Your task to perform on an android device: read, delete, or share a saved page in the chrome app Image 0: 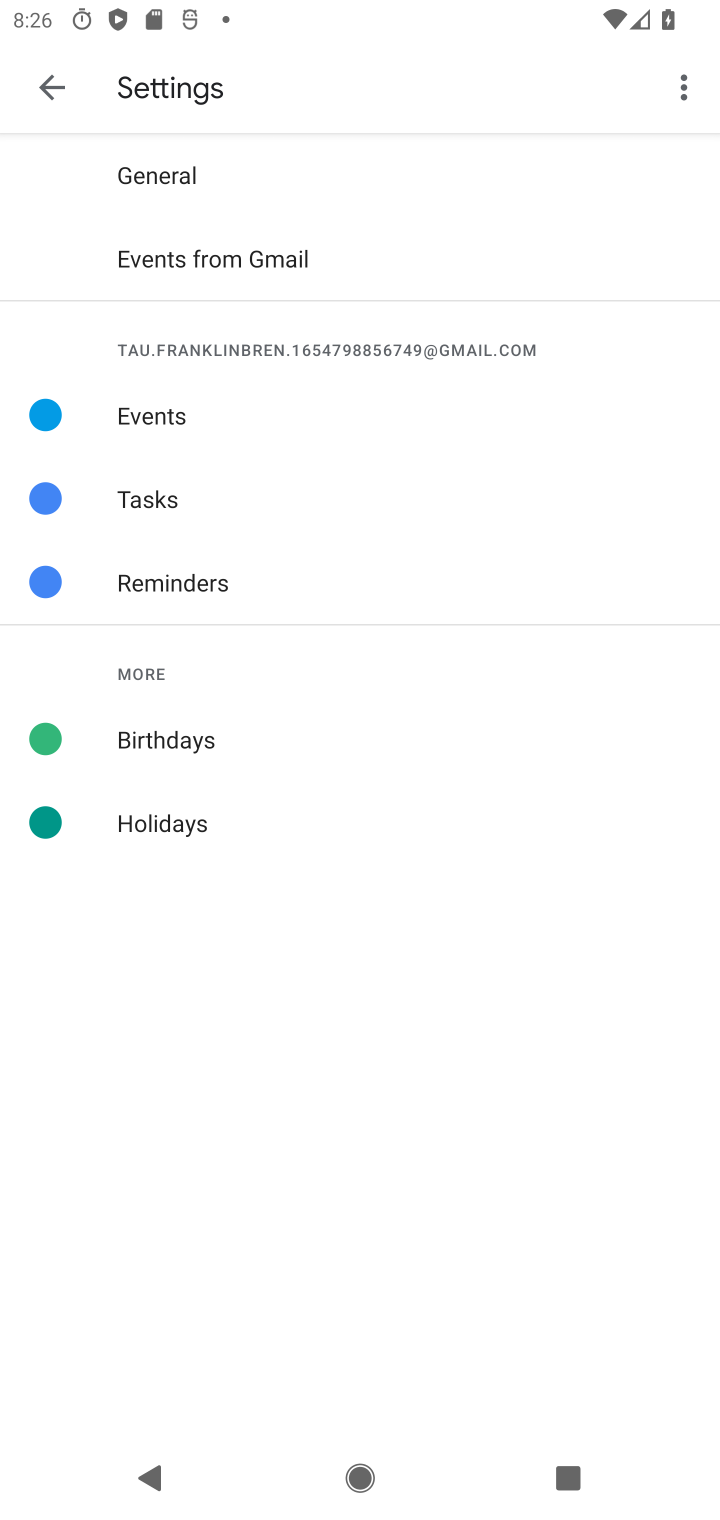
Step 0: press home button
Your task to perform on an android device: read, delete, or share a saved page in the chrome app Image 1: 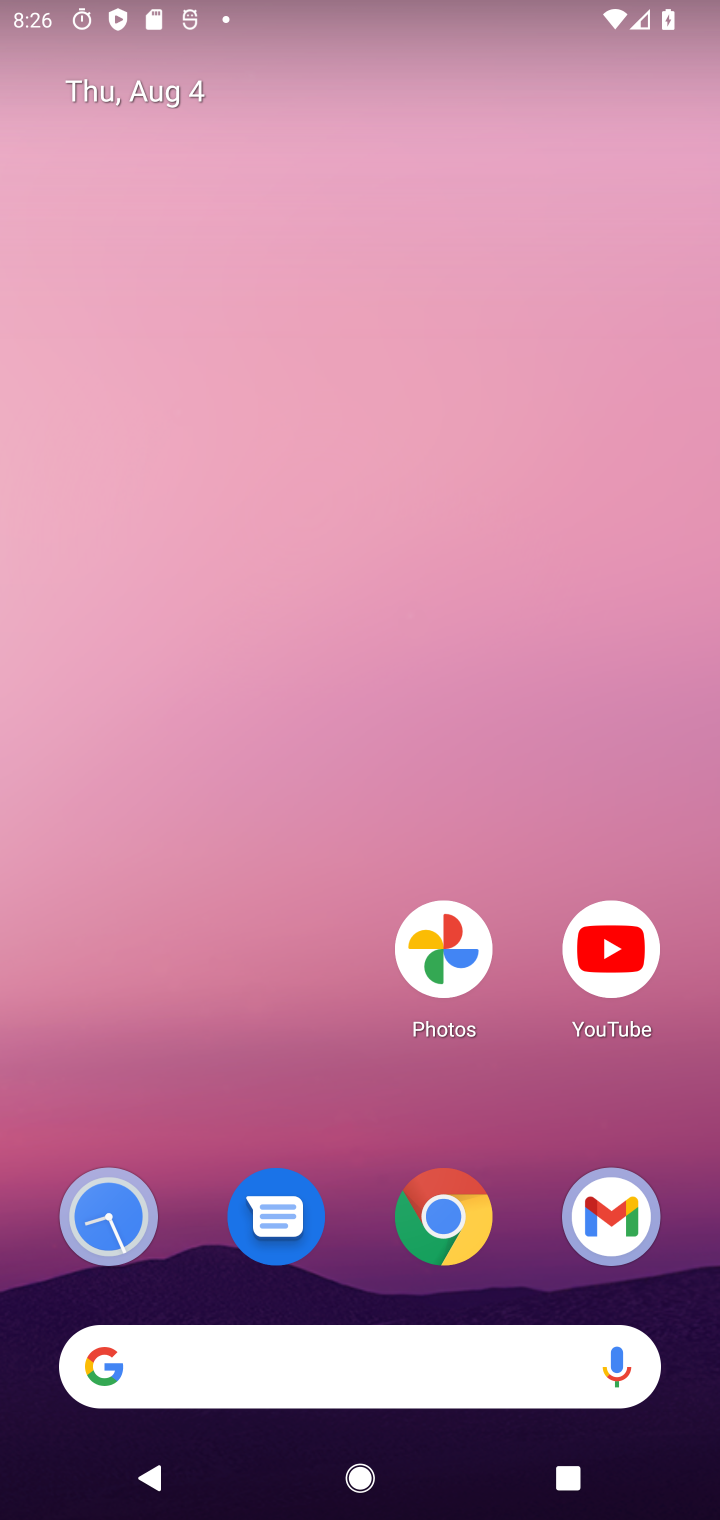
Step 1: click (448, 1222)
Your task to perform on an android device: read, delete, or share a saved page in the chrome app Image 2: 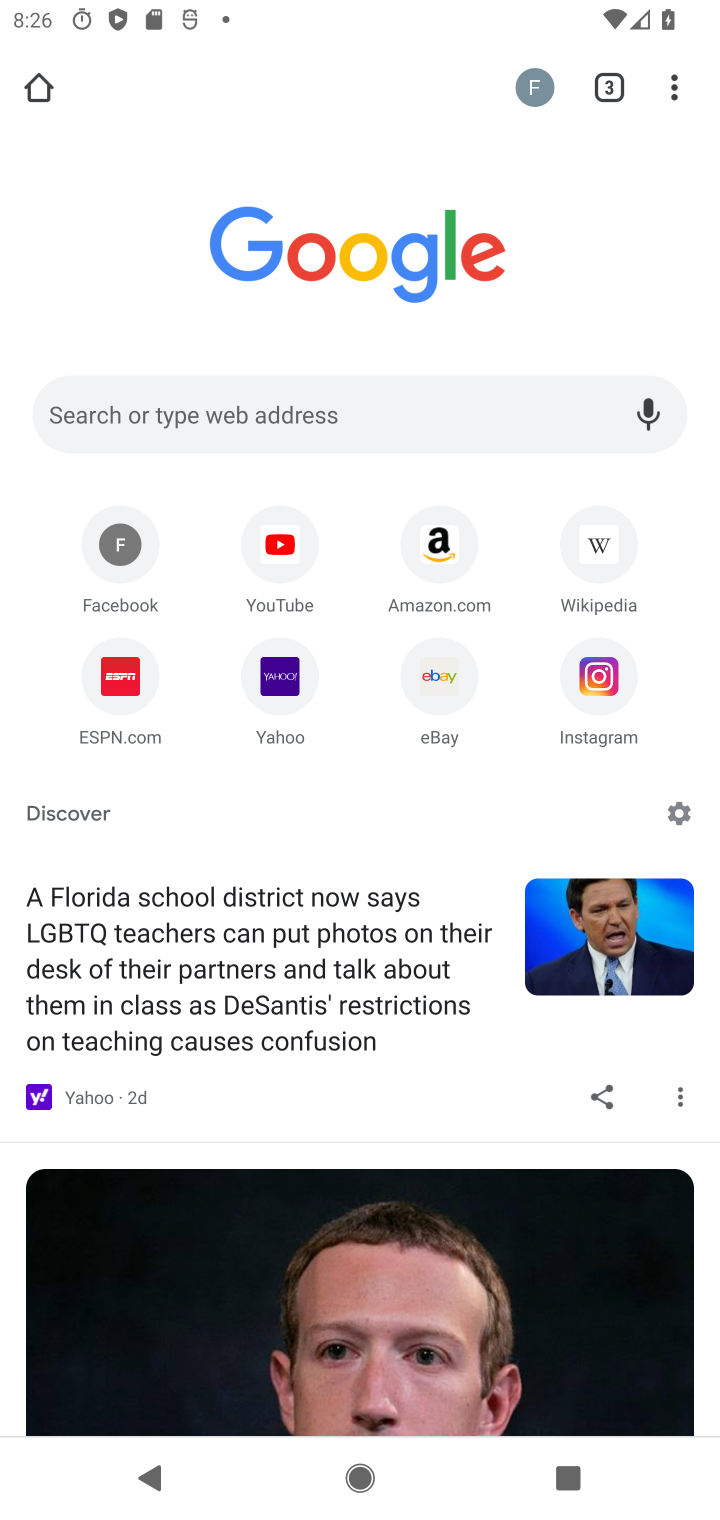
Step 2: click (677, 96)
Your task to perform on an android device: read, delete, or share a saved page in the chrome app Image 3: 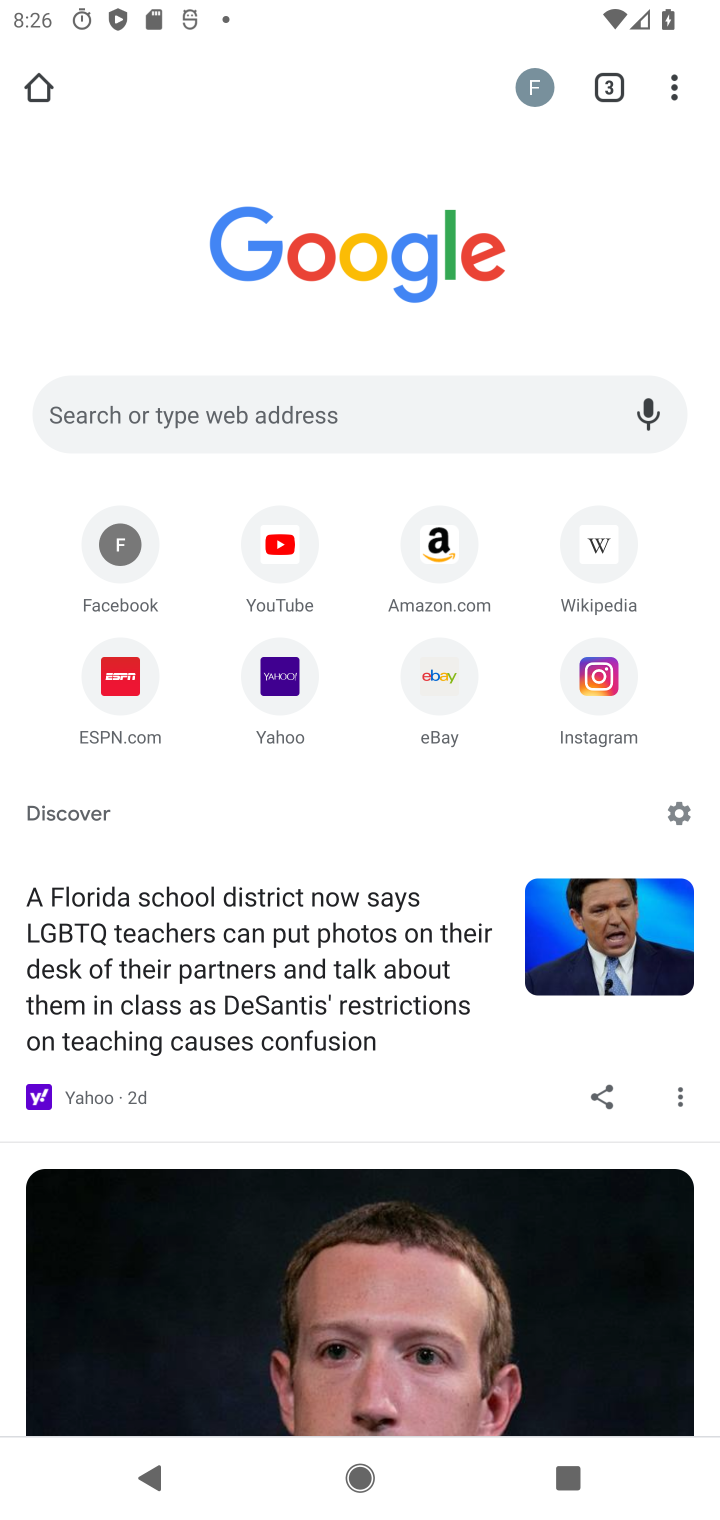
Step 3: click (671, 89)
Your task to perform on an android device: read, delete, or share a saved page in the chrome app Image 4: 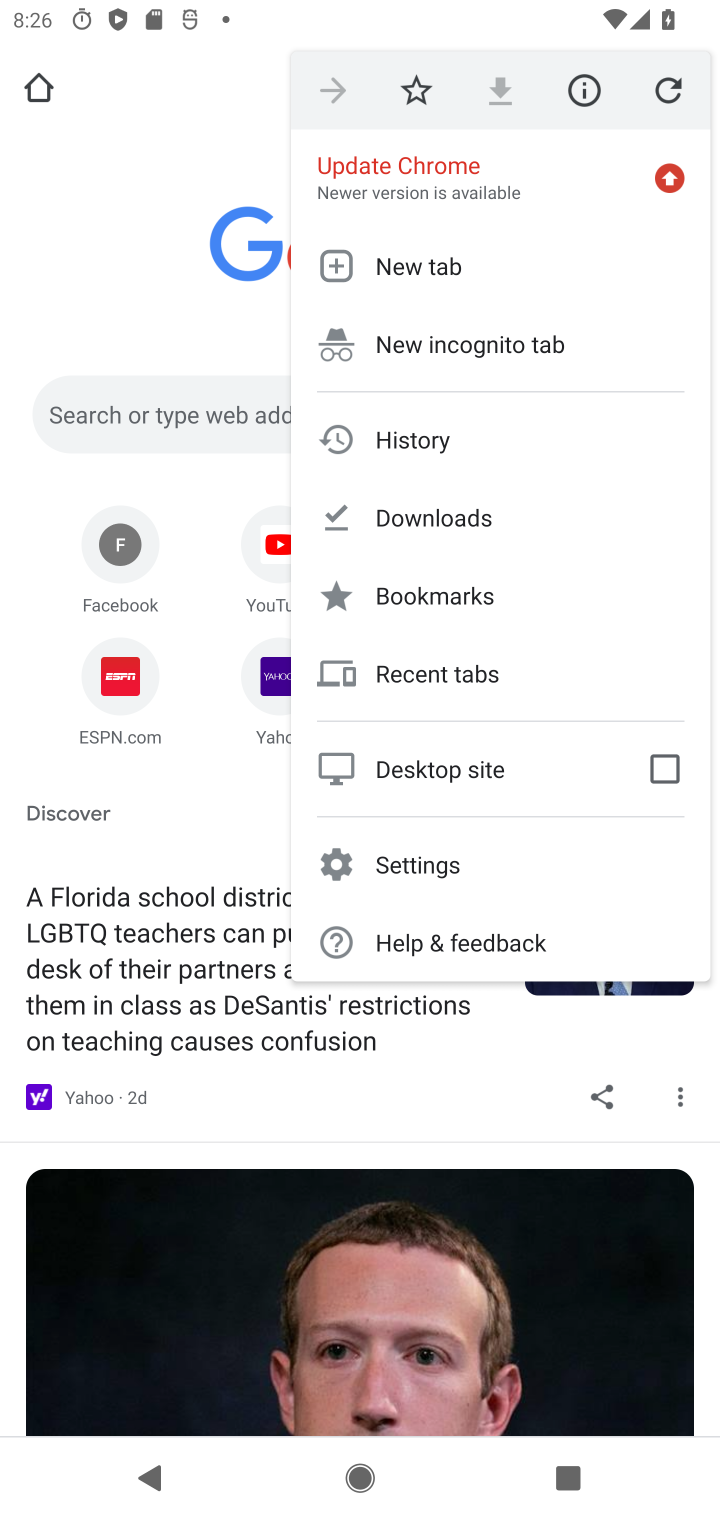
Step 4: click (449, 516)
Your task to perform on an android device: read, delete, or share a saved page in the chrome app Image 5: 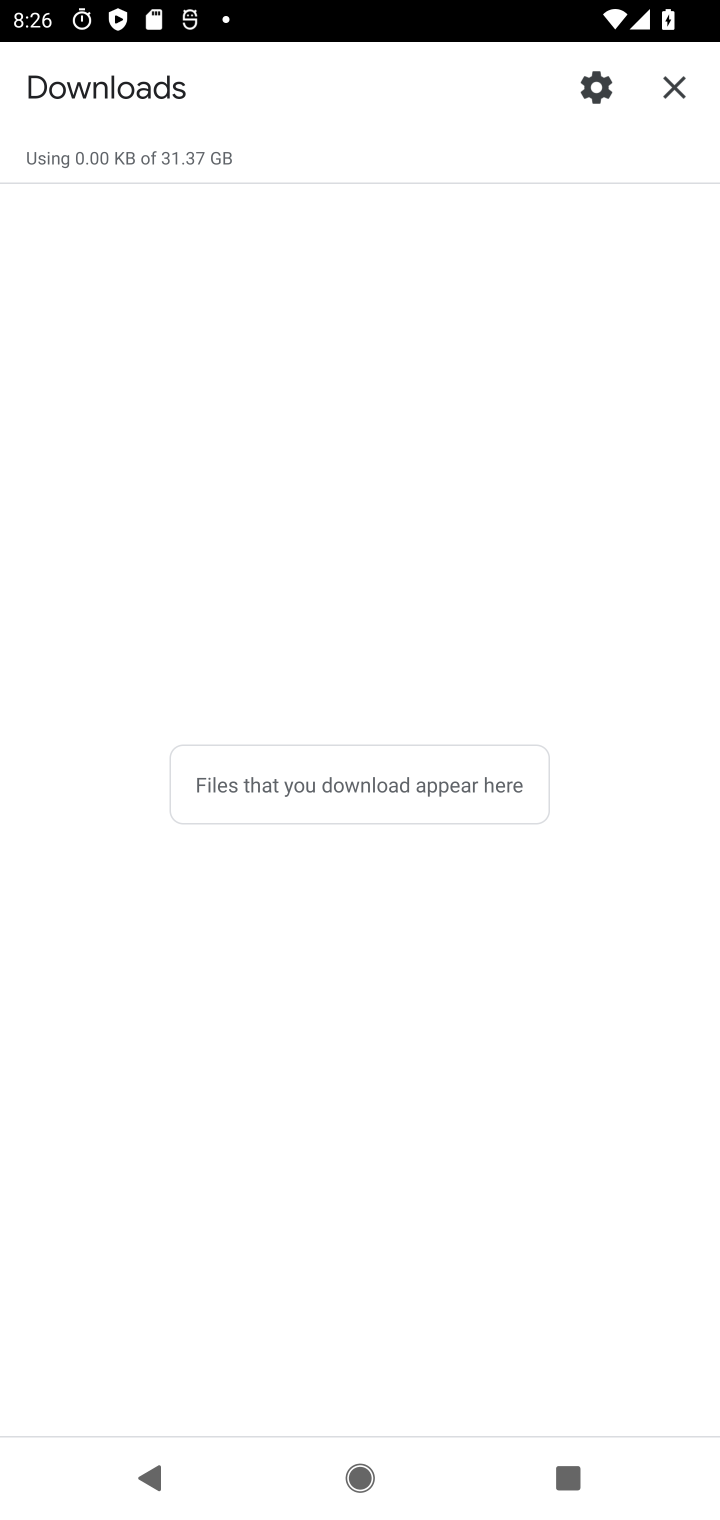
Step 5: task complete